Your task to perform on an android device: search for starred emails in the gmail app Image 0: 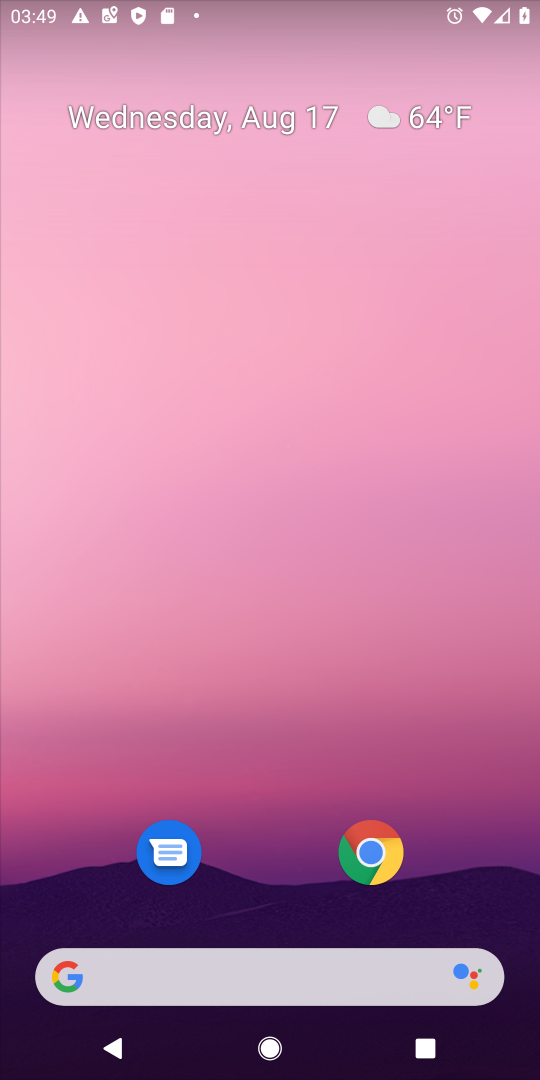
Step 0: drag from (270, 883) to (282, 78)
Your task to perform on an android device: search for starred emails in the gmail app Image 1: 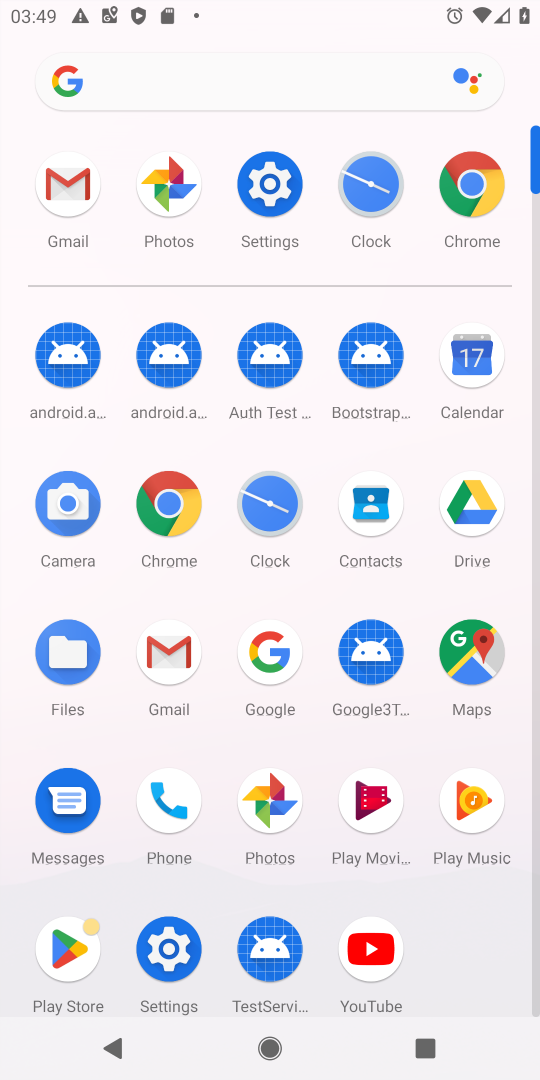
Step 1: click (170, 657)
Your task to perform on an android device: search for starred emails in the gmail app Image 2: 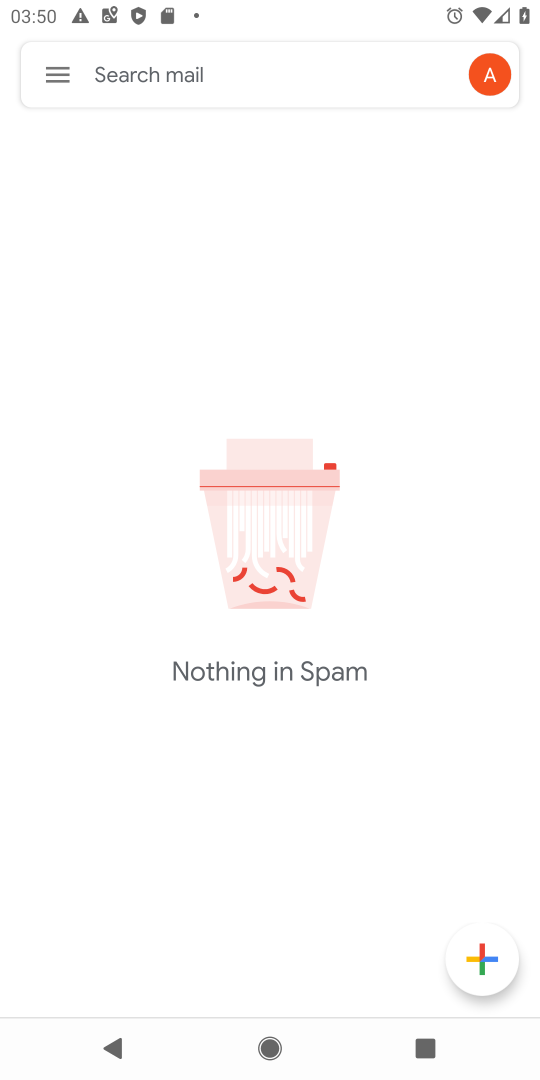
Step 2: click (66, 68)
Your task to perform on an android device: search for starred emails in the gmail app Image 3: 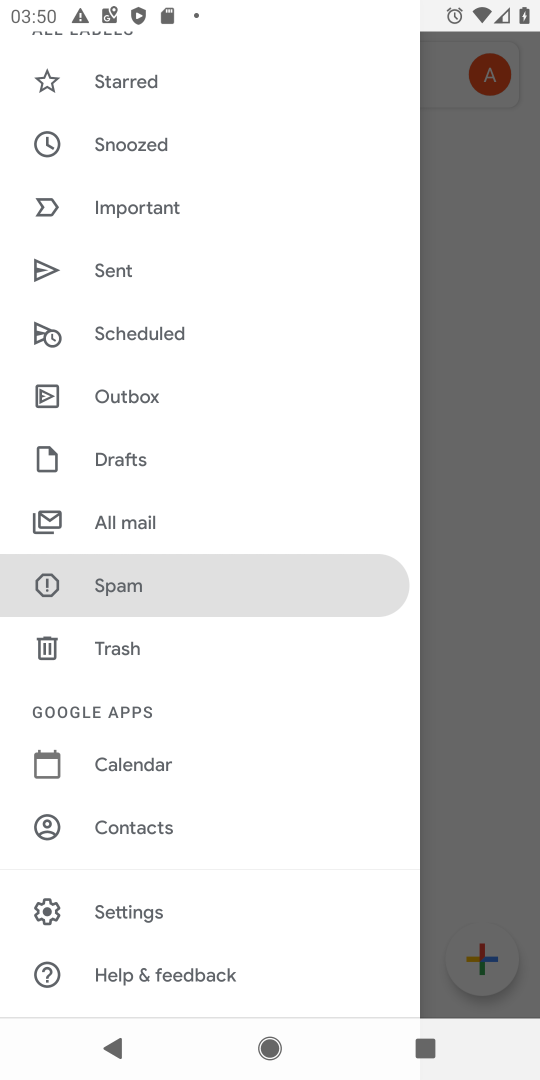
Step 3: click (127, 90)
Your task to perform on an android device: search for starred emails in the gmail app Image 4: 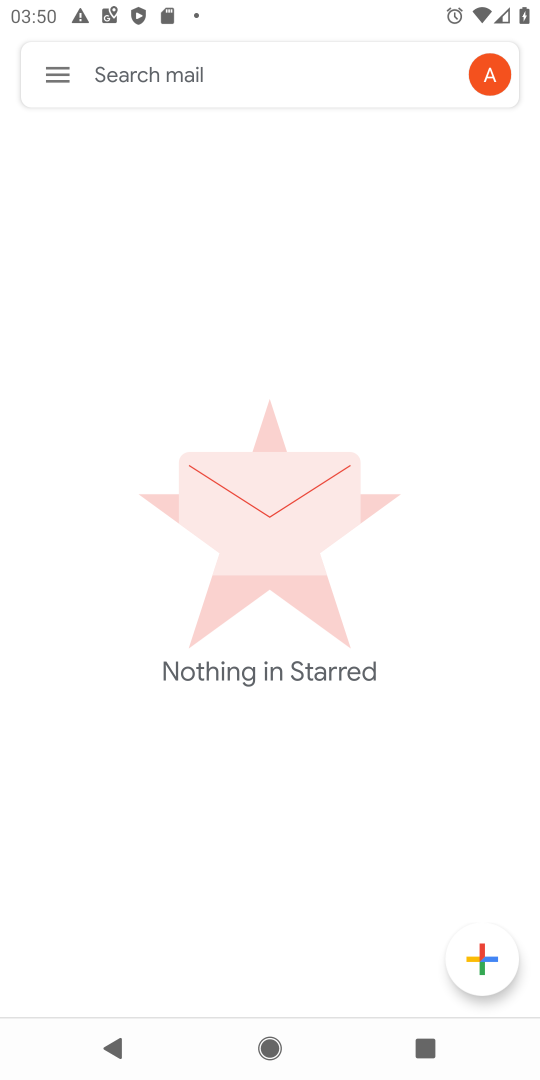
Step 4: task complete